Your task to perform on an android device: remove spam from my inbox in the gmail app Image 0: 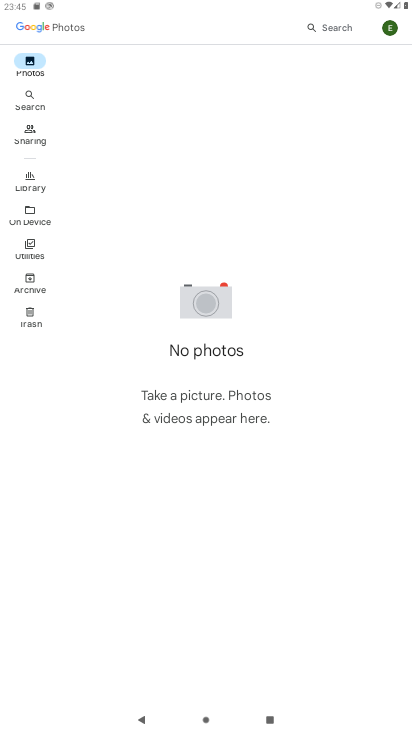
Step 0: press home button
Your task to perform on an android device: remove spam from my inbox in the gmail app Image 1: 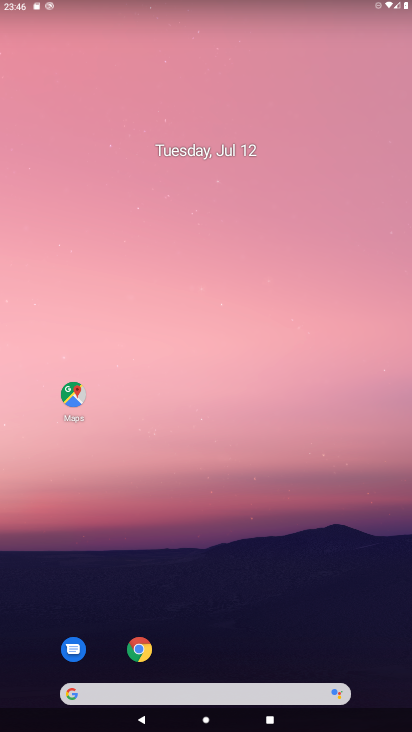
Step 1: drag from (369, 693) to (303, 184)
Your task to perform on an android device: remove spam from my inbox in the gmail app Image 2: 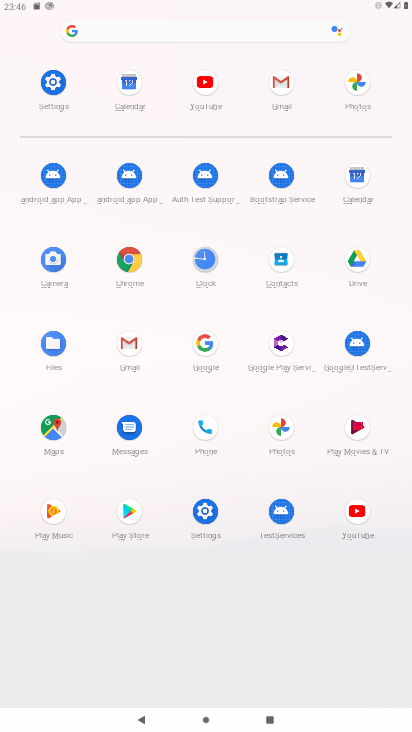
Step 2: click (130, 342)
Your task to perform on an android device: remove spam from my inbox in the gmail app Image 3: 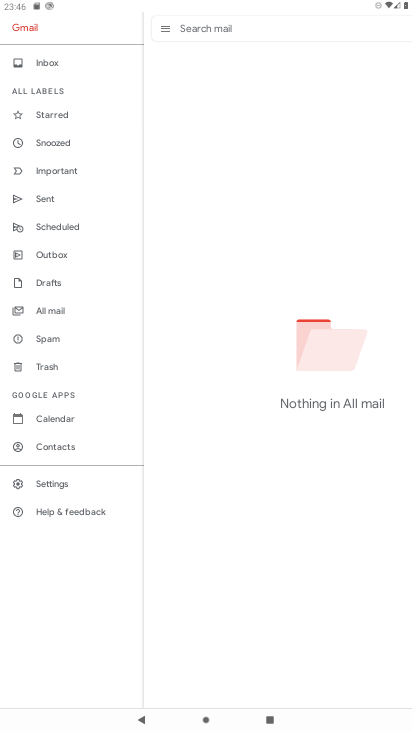
Step 3: click (42, 342)
Your task to perform on an android device: remove spam from my inbox in the gmail app Image 4: 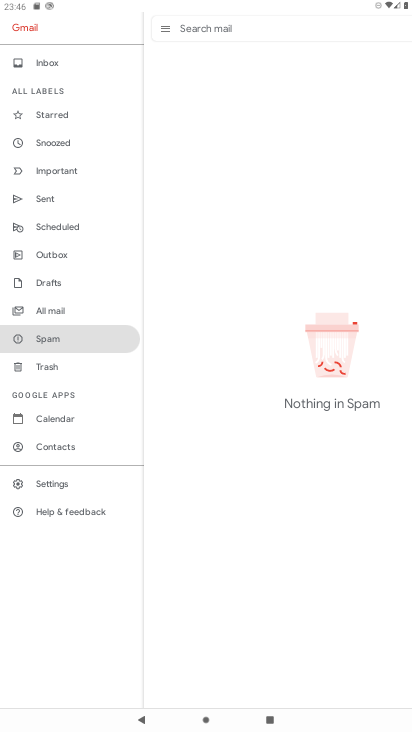
Step 4: task complete